Your task to perform on an android device: Go to CNN.com Image 0: 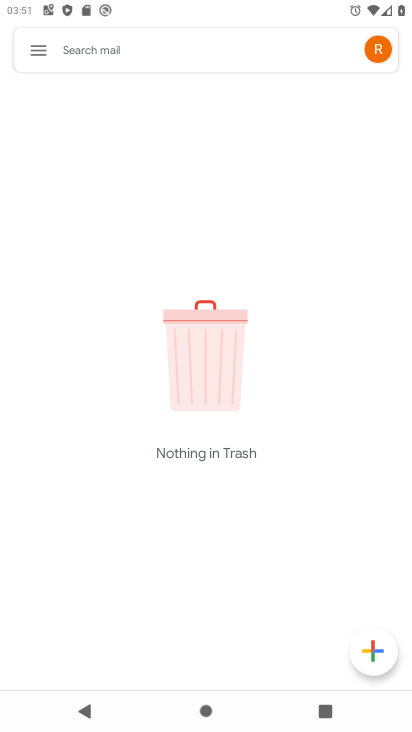
Step 0: press home button
Your task to perform on an android device: Go to CNN.com Image 1: 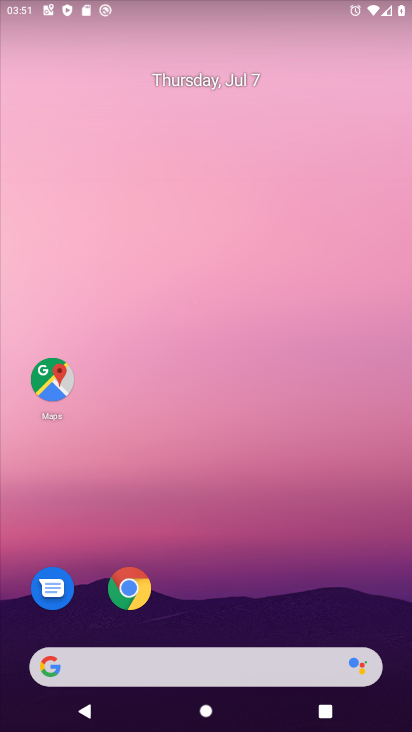
Step 1: drag from (173, 636) to (136, 306)
Your task to perform on an android device: Go to CNN.com Image 2: 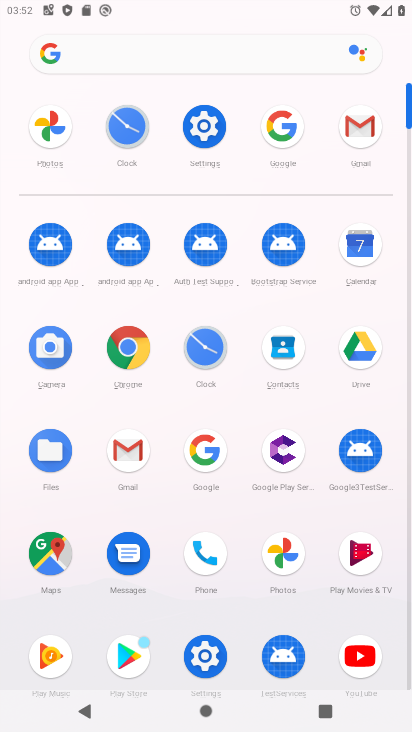
Step 2: click (213, 452)
Your task to perform on an android device: Go to CNN.com Image 3: 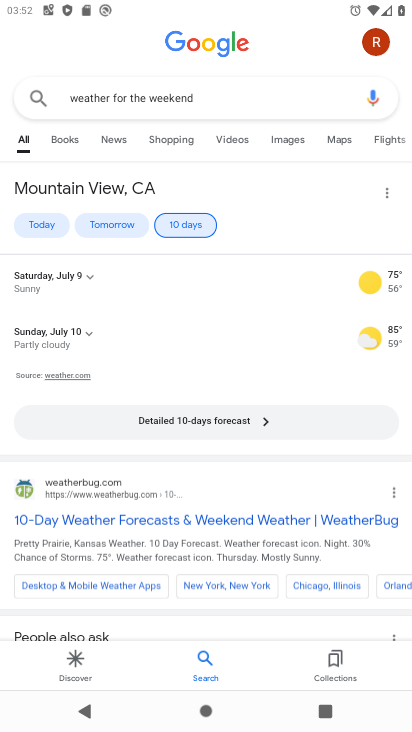
Step 3: click (101, 94)
Your task to perform on an android device: Go to CNN.com Image 4: 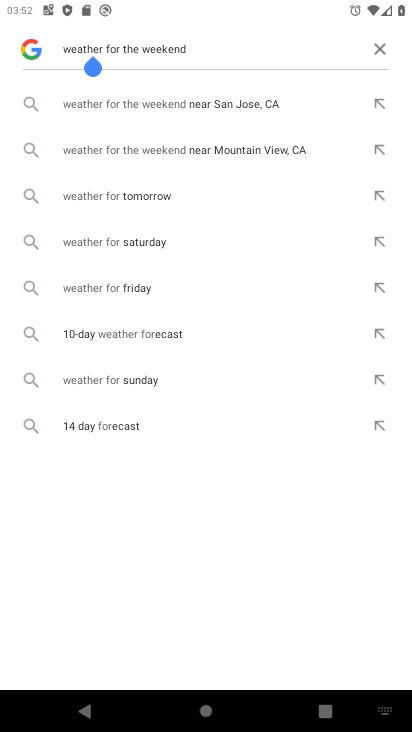
Step 4: click (387, 46)
Your task to perform on an android device: Go to CNN.com Image 5: 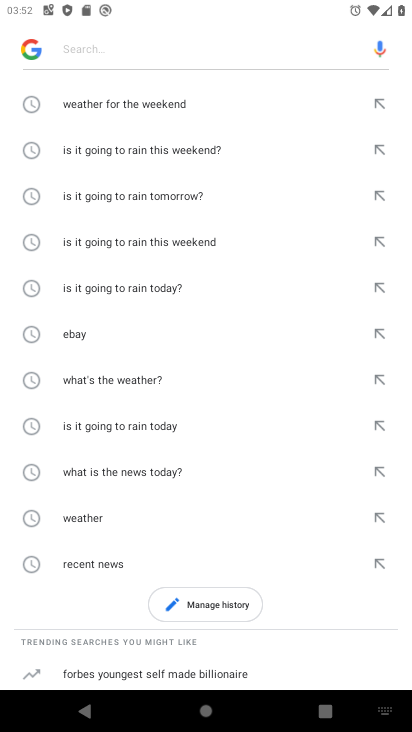
Step 5: type "CNN.com"
Your task to perform on an android device: Go to CNN.com Image 6: 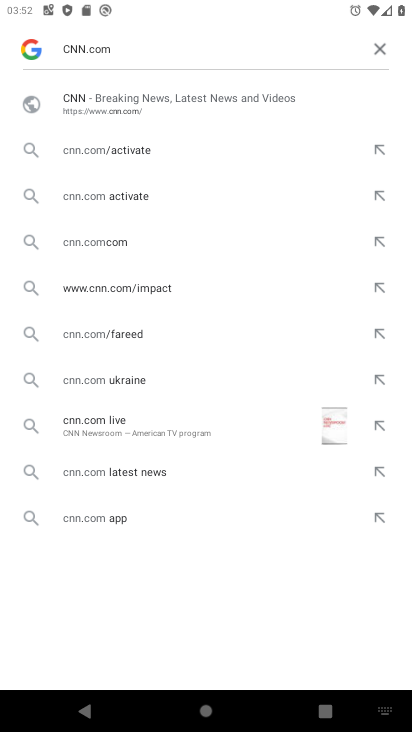
Step 6: click (194, 103)
Your task to perform on an android device: Go to CNN.com Image 7: 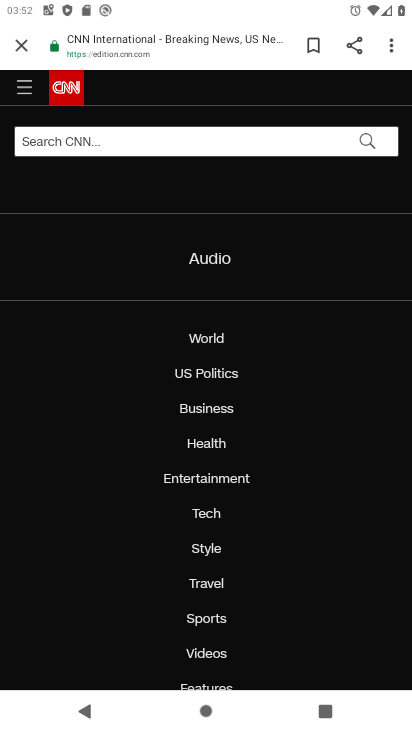
Step 7: task complete